Your task to perform on an android device: Open Google Chrome and open the bookmarks view Image 0: 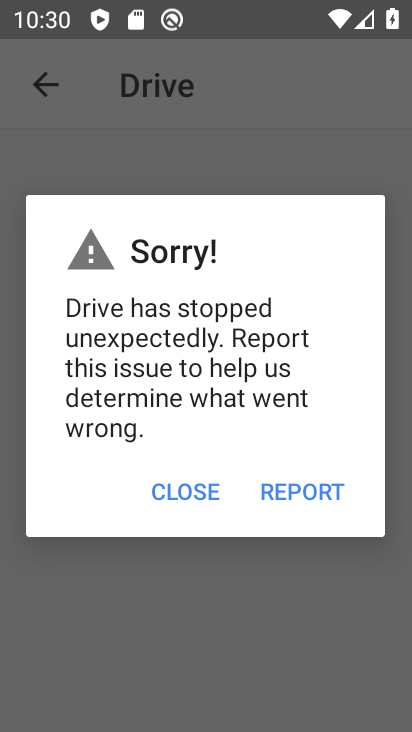
Step 0: press home button
Your task to perform on an android device: Open Google Chrome and open the bookmarks view Image 1: 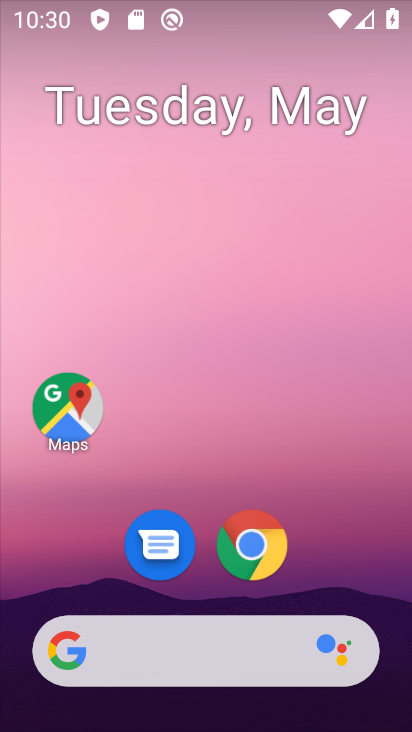
Step 1: click (245, 571)
Your task to perform on an android device: Open Google Chrome and open the bookmarks view Image 2: 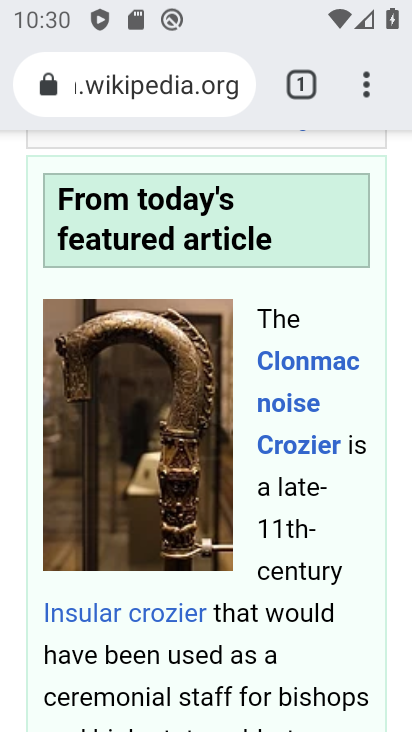
Step 2: click (371, 79)
Your task to perform on an android device: Open Google Chrome and open the bookmarks view Image 3: 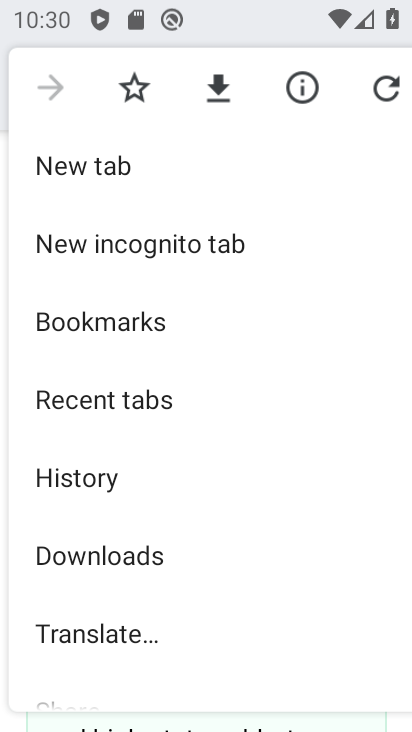
Step 3: click (133, 323)
Your task to perform on an android device: Open Google Chrome and open the bookmarks view Image 4: 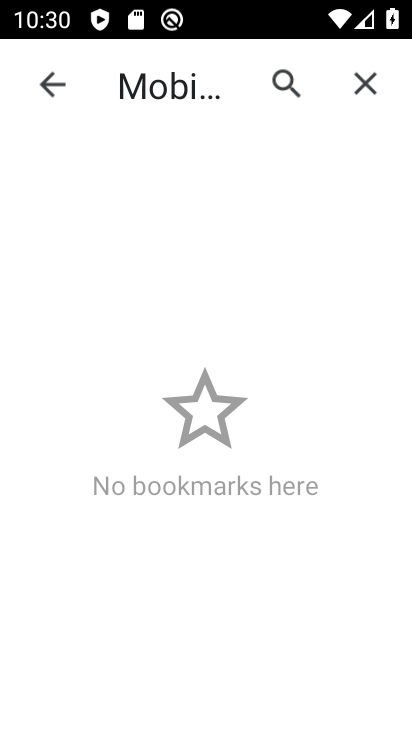
Step 4: task complete